Your task to perform on an android device: Open the phone app and click the voicemail tab. Image 0: 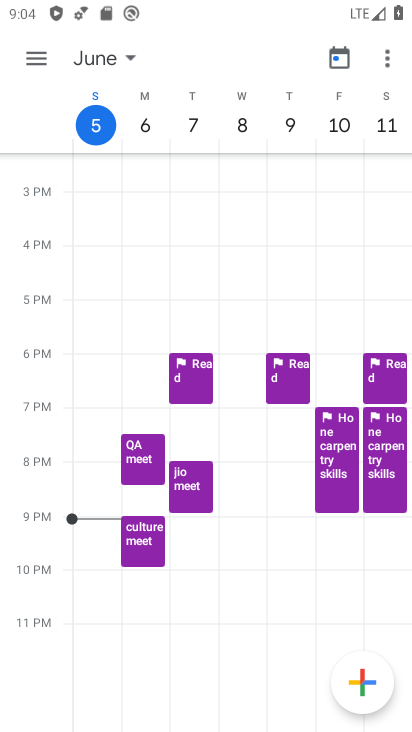
Step 0: press home button
Your task to perform on an android device: Open the phone app and click the voicemail tab. Image 1: 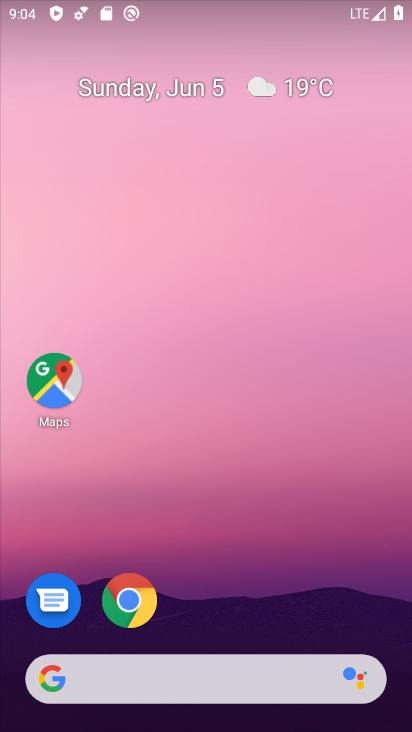
Step 1: drag from (277, 589) to (248, 353)
Your task to perform on an android device: Open the phone app and click the voicemail tab. Image 2: 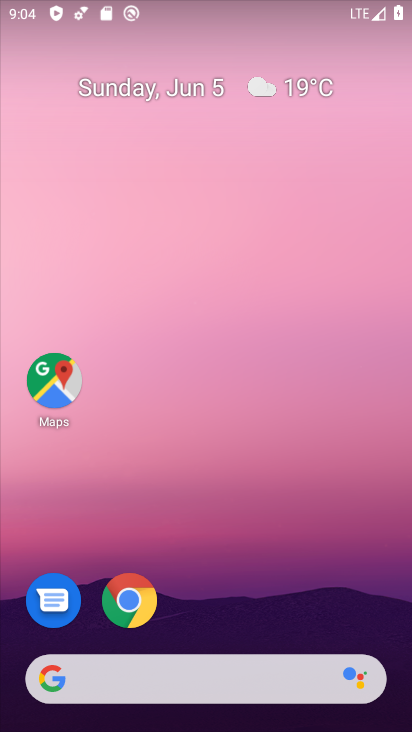
Step 2: drag from (266, 604) to (191, 253)
Your task to perform on an android device: Open the phone app and click the voicemail tab. Image 3: 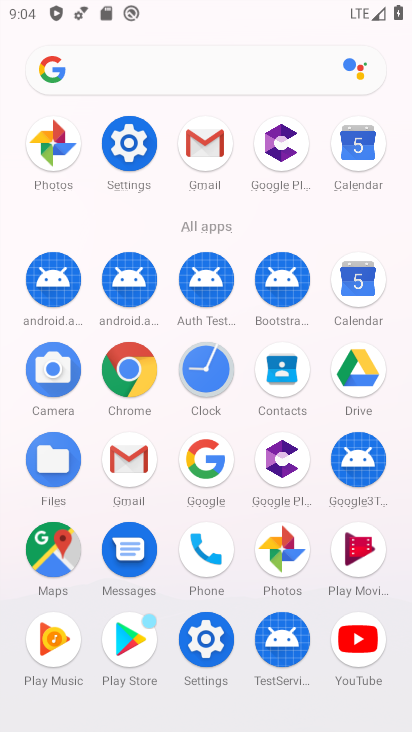
Step 3: click (221, 556)
Your task to perform on an android device: Open the phone app and click the voicemail tab. Image 4: 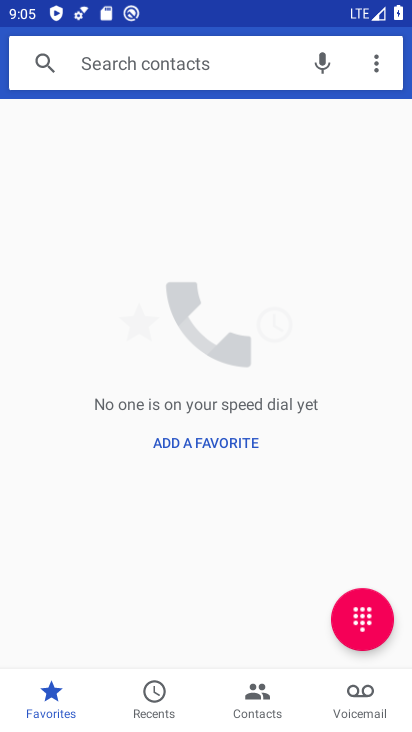
Step 4: click (368, 686)
Your task to perform on an android device: Open the phone app and click the voicemail tab. Image 5: 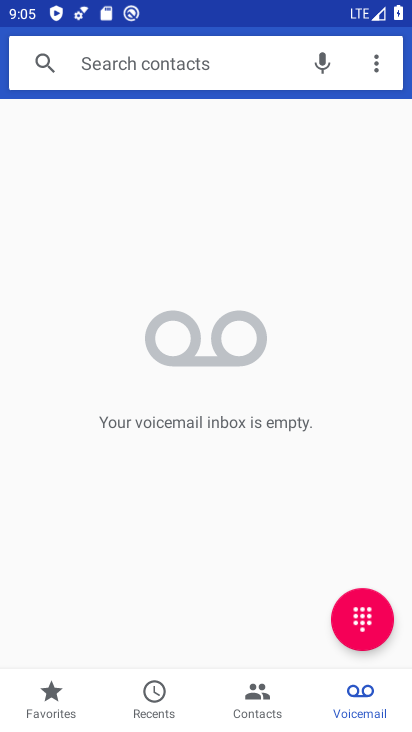
Step 5: task complete